Your task to perform on an android device: Search for "jbl flip 4" on newegg.com, select the first entry, and add it to the cart. Image 0: 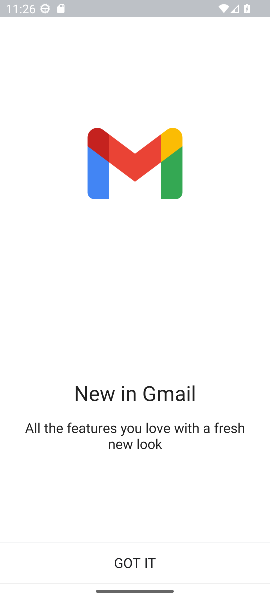
Step 0: press home button
Your task to perform on an android device: Search for "jbl flip 4" on newegg.com, select the first entry, and add it to the cart. Image 1: 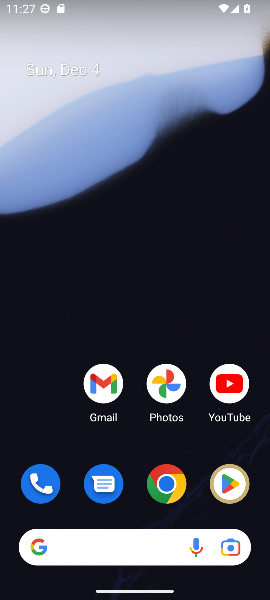
Step 1: click (164, 488)
Your task to perform on an android device: Search for "jbl flip 4" on newegg.com, select the first entry, and add it to the cart. Image 2: 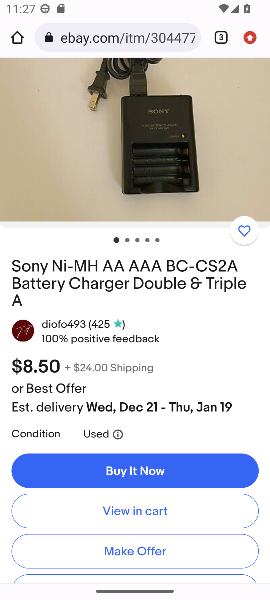
Step 2: click (117, 36)
Your task to perform on an android device: Search for "jbl flip 4" on newegg.com, select the first entry, and add it to the cart. Image 3: 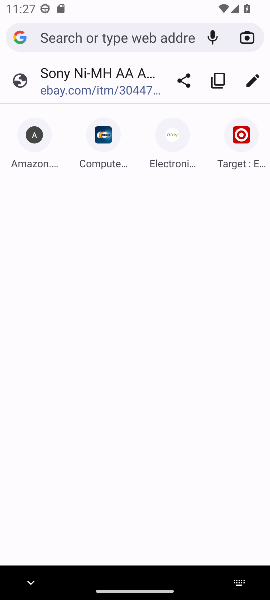
Step 3: click (94, 158)
Your task to perform on an android device: Search for "jbl flip 4" on newegg.com, select the first entry, and add it to the cart. Image 4: 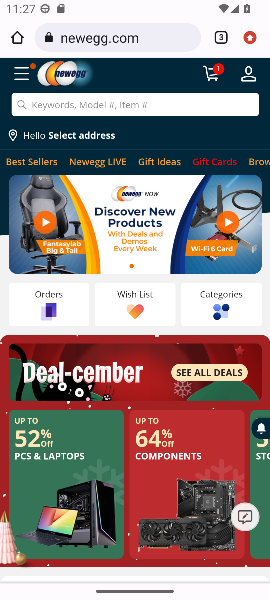
Step 4: click (75, 100)
Your task to perform on an android device: Search for "jbl flip 4" on newegg.com, select the first entry, and add it to the cart. Image 5: 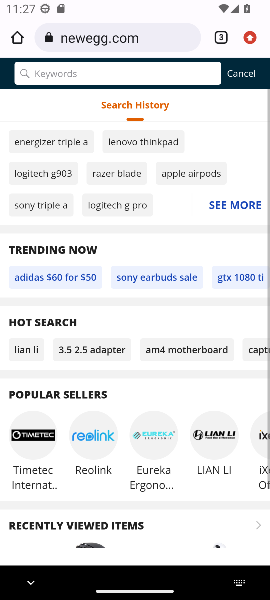
Step 5: type "jbl flip 4"
Your task to perform on an android device: Search for "jbl flip 4" on newegg.com, select the first entry, and add it to the cart. Image 6: 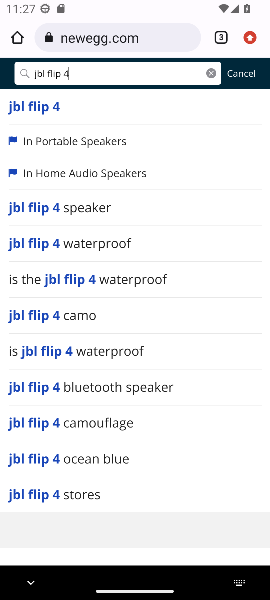
Step 6: click (47, 112)
Your task to perform on an android device: Search for "jbl flip 4" on newegg.com, select the first entry, and add it to the cart. Image 7: 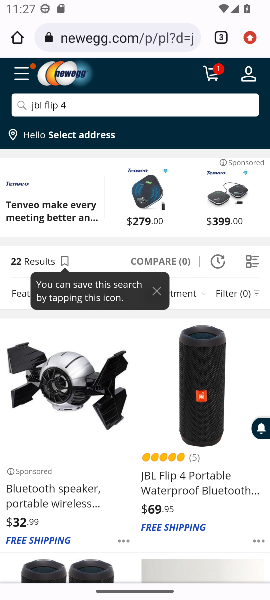
Step 7: task complete